Your task to perform on an android device: Open Chrome and go to the settings page Image 0: 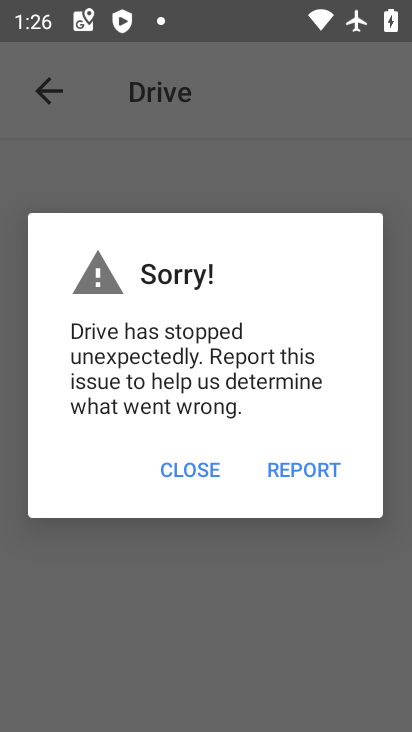
Step 0: press home button
Your task to perform on an android device: Open Chrome and go to the settings page Image 1: 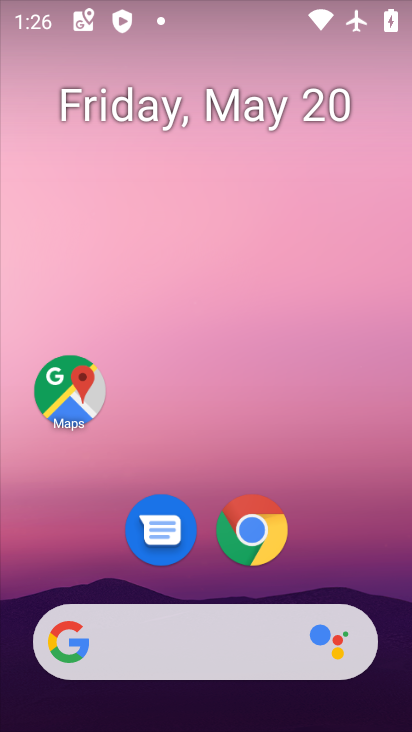
Step 1: click (244, 536)
Your task to perform on an android device: Open Chrome and go to the settings page Image 2: 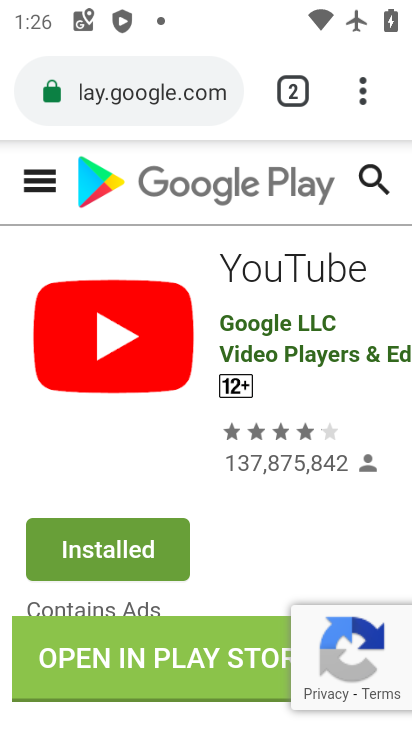
Step 2: click (366, 94)
Your task to perform on an android device: Open Chrome and go to the settings page Image 3: 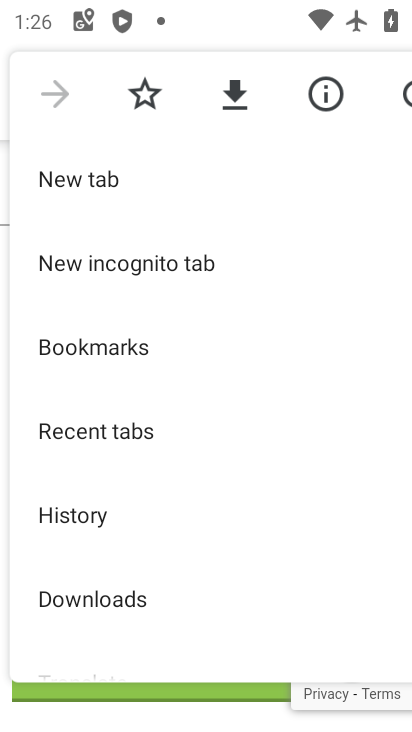
Step 3: drag from (225, 599) to (320, 243)
Your task to perform on an android device: Open Chrome and go to the settings page Image 4: 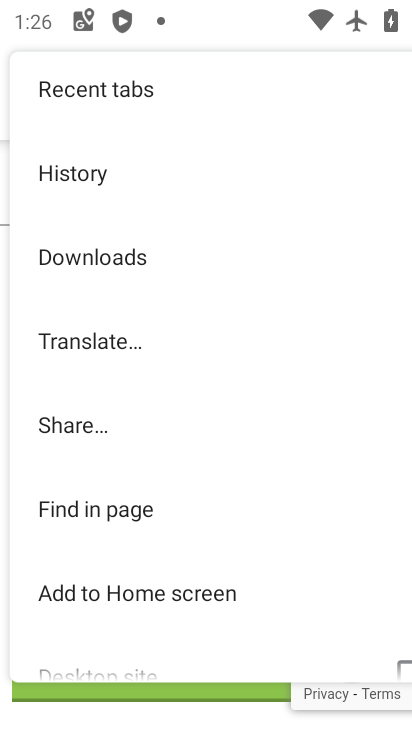
Step 4: drag from (164, 624) to (259, 184)
Your task to perform on an android device: Open Chrome and go to the settings page Image 5: 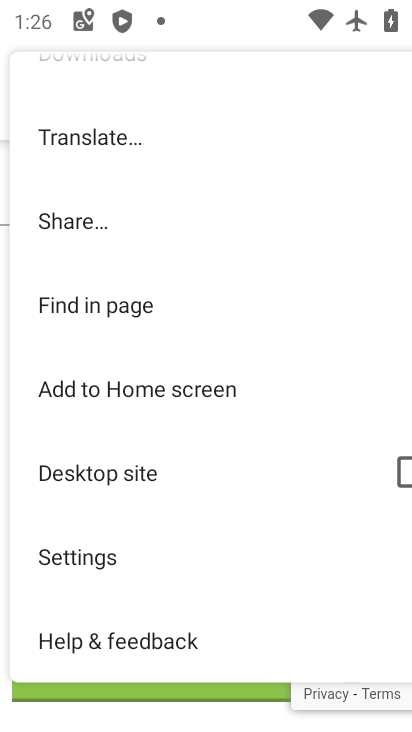
Step 5: click (137, 556)
Your task to perform on an android device: Open Chrome and go to the settings page Image 6: 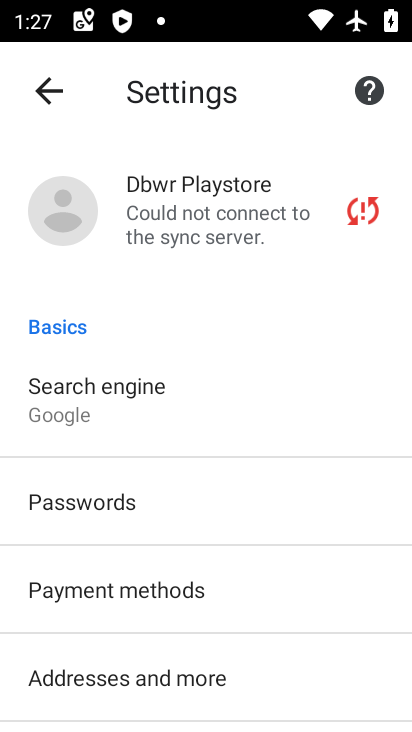
Step 6: task complete